Your task to perform on an android device: Go to Android settings Image 0: 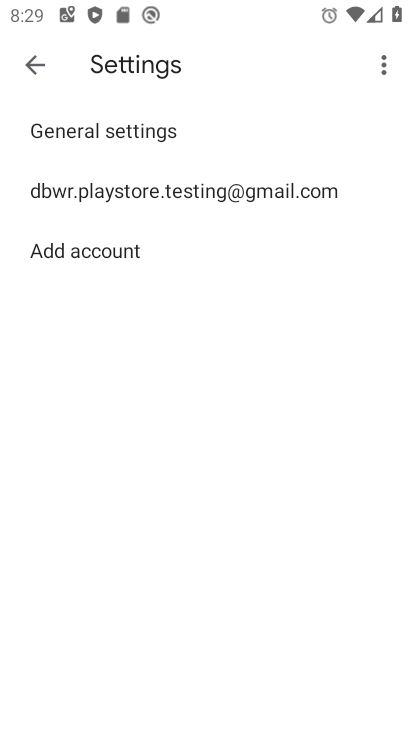
Step 0: press home button
Your task to perform on an android device: Go to Android settings Image 1: 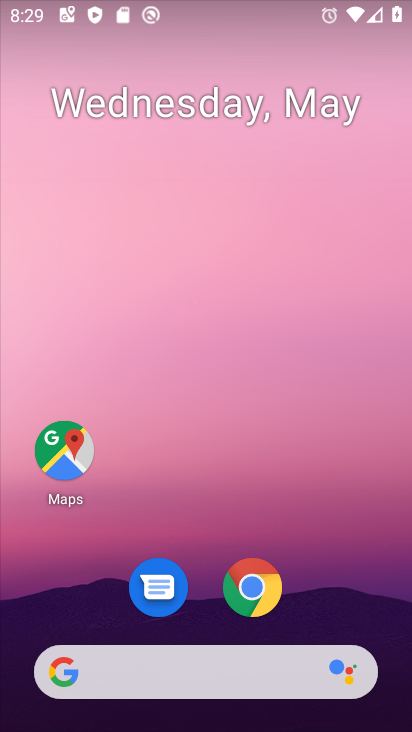
Step 1: drag from (270, 629) to (341, 105)
Your task to perform on an android device: Go to Android settings Image 2: 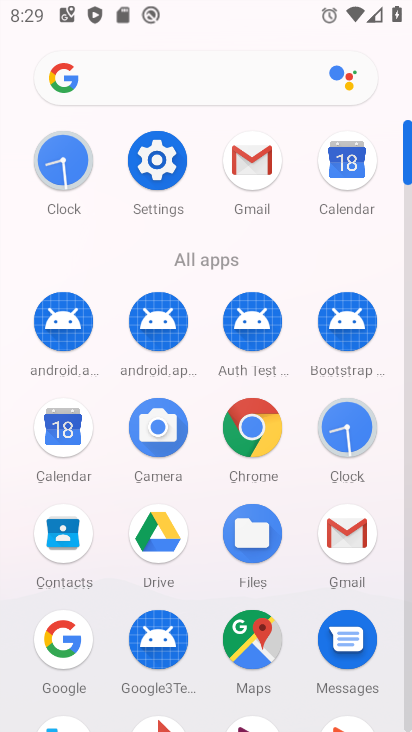
Step 2: click (170, 154)
Your task to perform on an android device: Go to Android settings Image 3: 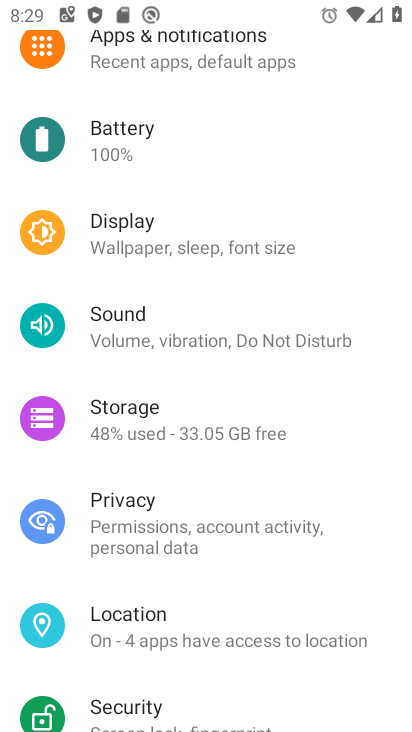
Step 3: drag from (193, 522) to (233, 191)
Your task to perform on an android device: Go to Android settings Image 4: 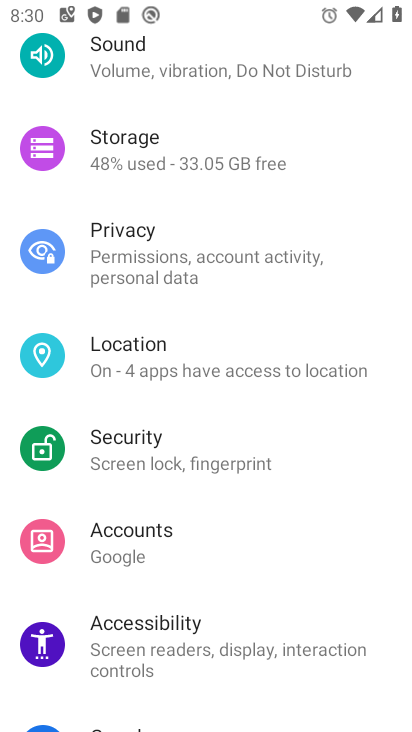
Step 4: drag from (214, 575) to (243, 392)
Your task to perform on an android device: Go to Android settings Image 5: 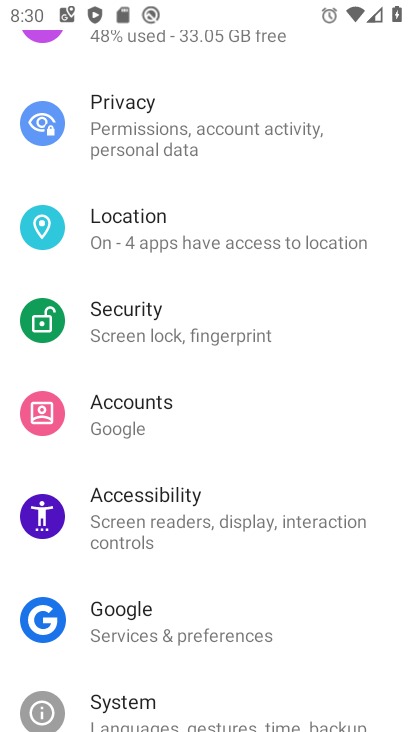
Step 5: drag from (204, 615) to (253, 343)
Your task to perform on an android device: Go to Android settings Image 6: 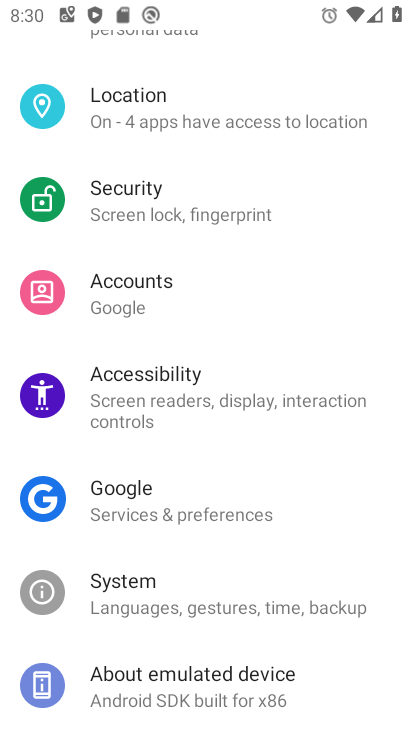
Step 6: drag from (149, 624) to (183, 411)
Your task to perform on an android device: Go to Android settings Image 7: 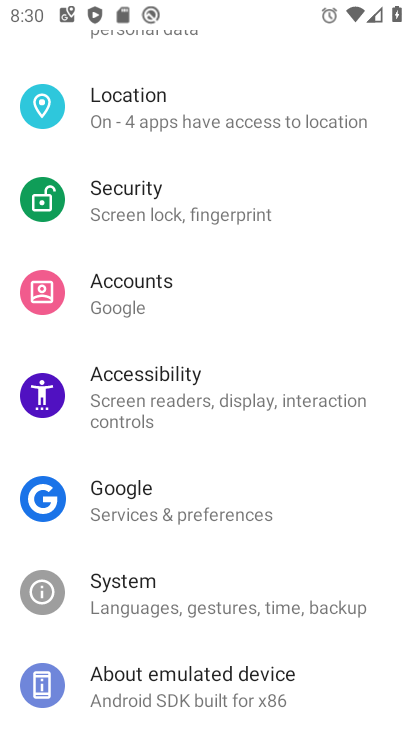
Step 7: click (158, 705)
Your task to perform on an android device: Go to Android settings Image 8: 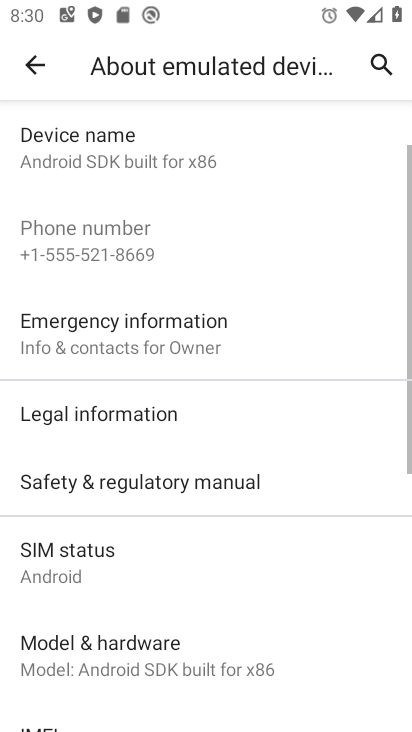
Step 8: drag from (141, 586) to (202, 278)
Your task to perform on an android device: Go to Android settings Image 9: 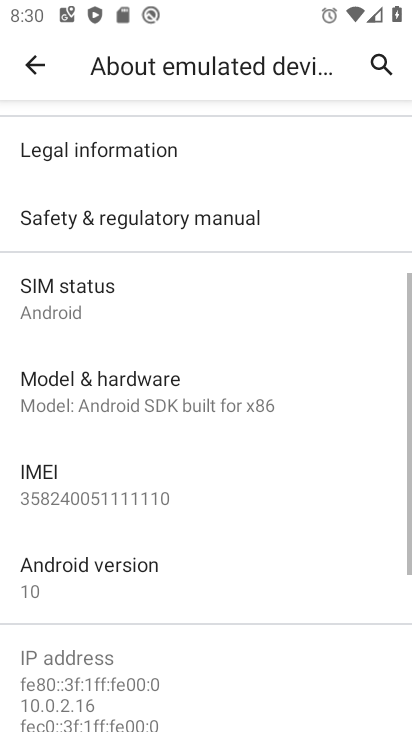
Step 9: click (146, 562)
Your task to perform on an android device: Go to Android settings Image 10: 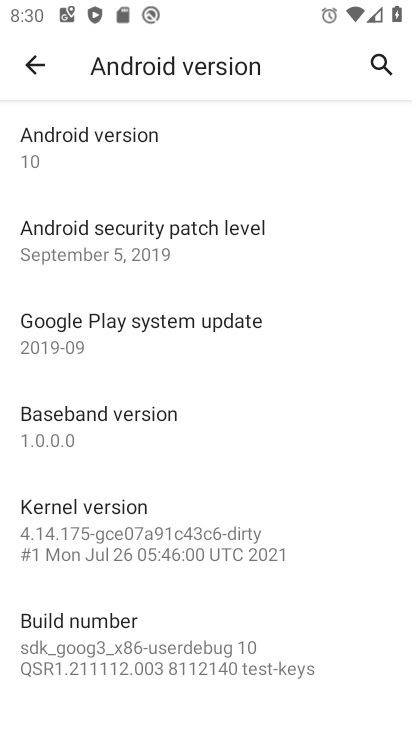
Step 10: task complete